Your task to perform on an android device: Open network settings Image 0: 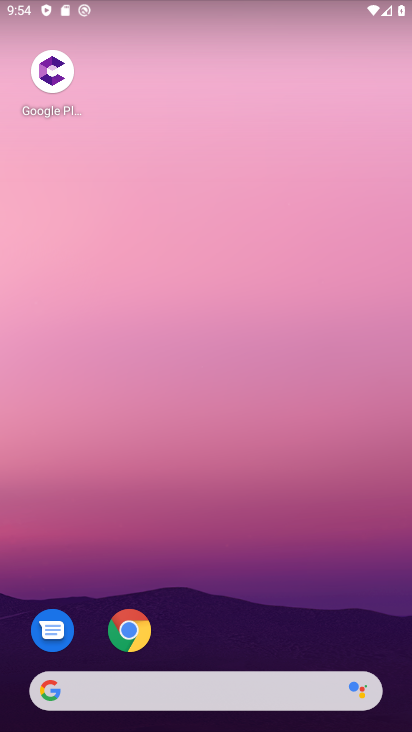
Step 0: drag from (255, 538) to (254, 117)
Your task to perform on an android device: Open network settings Image 1: 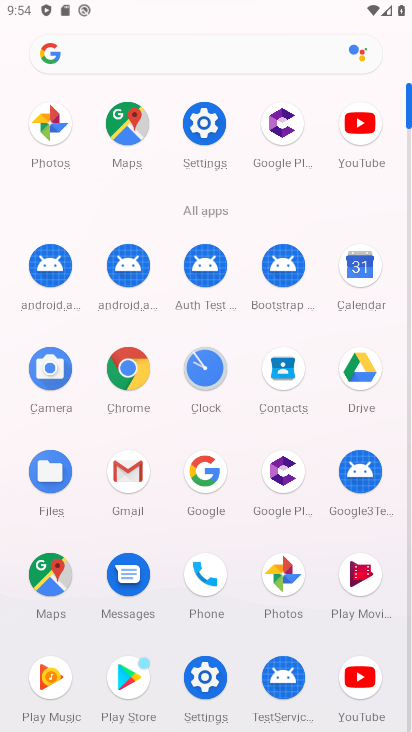
Step 1: click (204, 121)
Your task to perform on an android device: Open network settings Image 2: 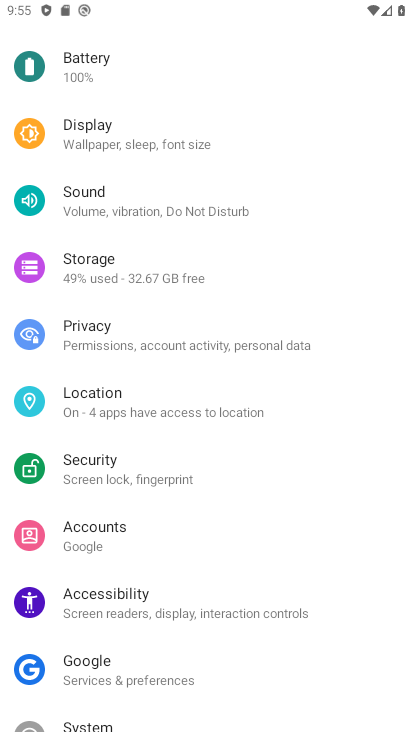
Step 2: drag from (369, 57) to (325, 481)
Your task to perform on an android device: Open network settings Image 3: 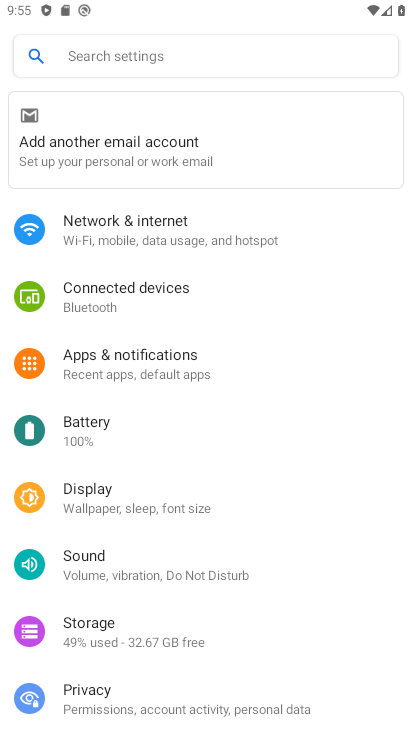
Step 3: click (138, 242)
Your task to perform on an android device: Open network settings Image 4: 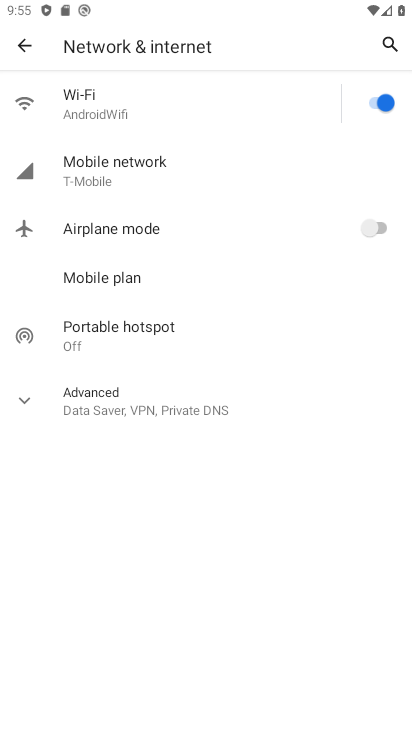
Step 4: click (137, 176)
Your task to perform on an android device: Open network settings Image 5: 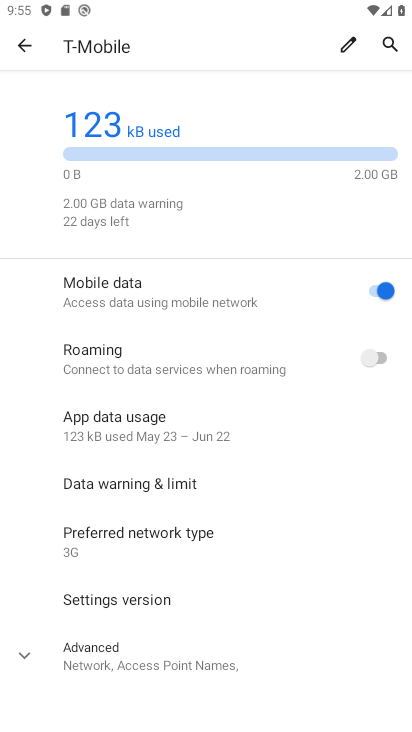
Step 5: task complete